Your task to perform on an android device: see tabs open on other devices in the chrome app Image 0: 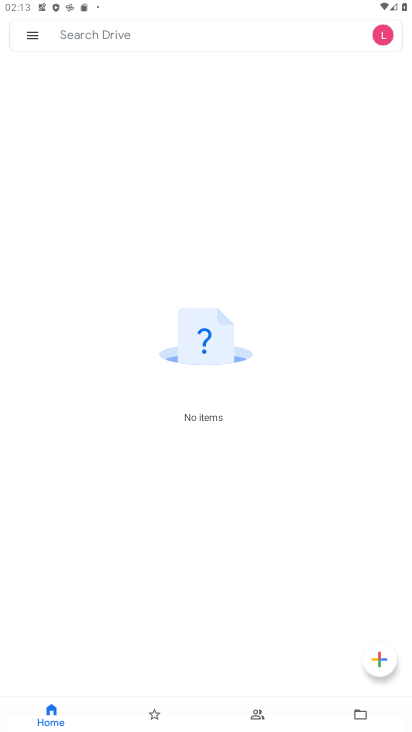
Step 0: press home button
Your task to perform on an android device: see tabs open on other devices in the chrome app Image 1: 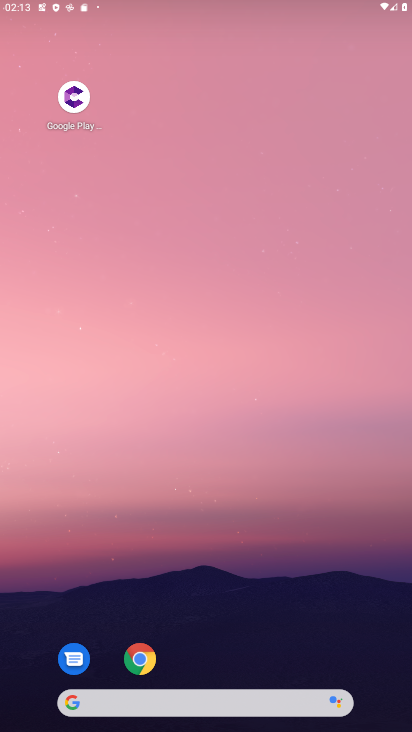
Step 1: drag from (258, 662) to (231, 155)
Your task to perform on an android device: see tabs open on other devices in the chrome app Image 2: 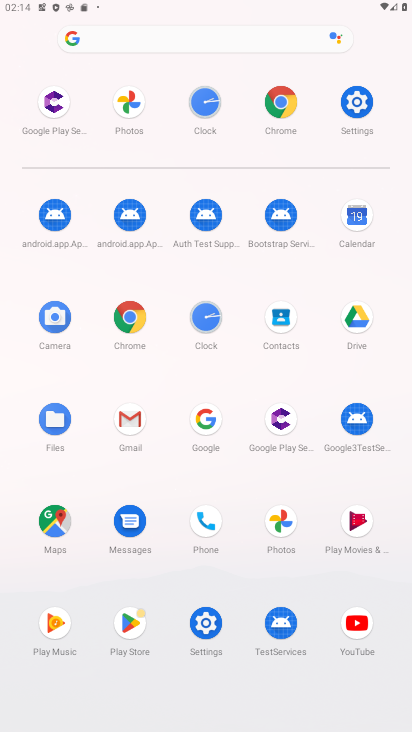
Step 2: click (107, 313)
Your task to perform on an android device: see tabs open on other devices in the chrome app Image 3: 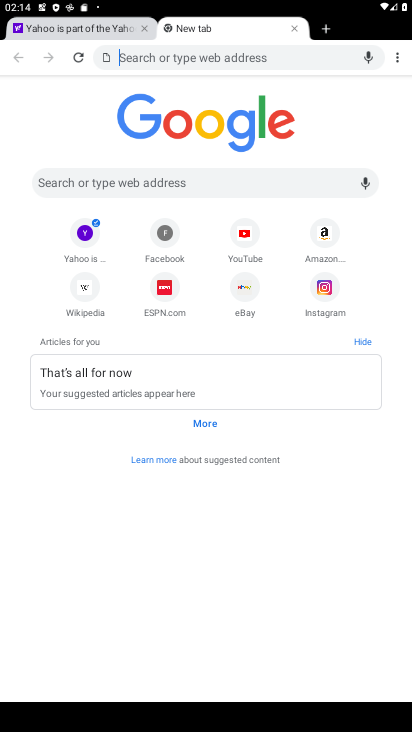
Step 3: task complete